Your task to perform on an android device: turn on bluetooth scan Image 0: 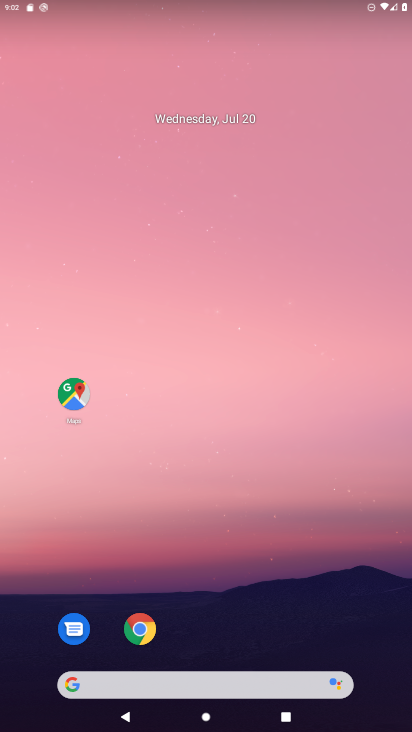
Step 0: drag from (375, 655) to (334, 111)
Your task to perform on an android device: turn on bluetooth scan Image 1: 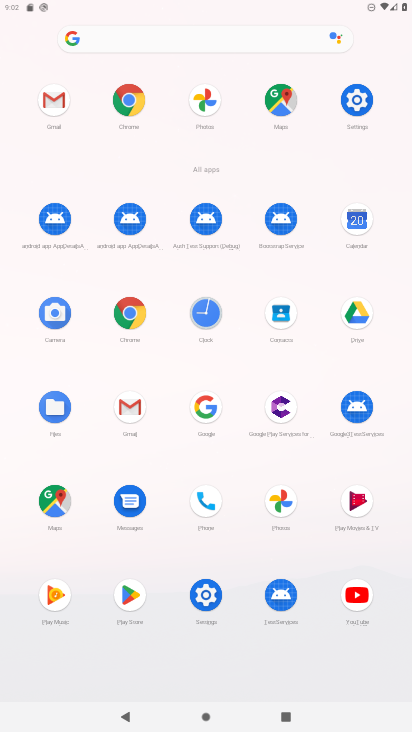
Step 1: click (204, 593)
Your task to perform on an android device: turn on bluetooth scan Image 2: 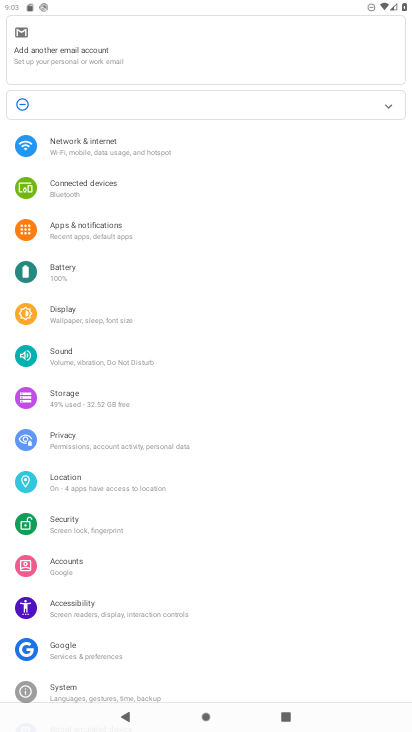
Step 2: click (52, 478)
Your task to perform on an android device: turn on bluetooth scan Image 3: 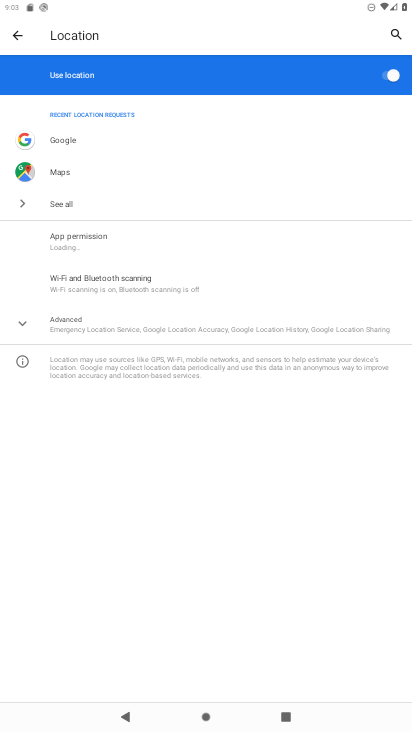
Step 3: click (88, 277)
Your task to perform on an android device: turn on bluetooth scan Image 4: 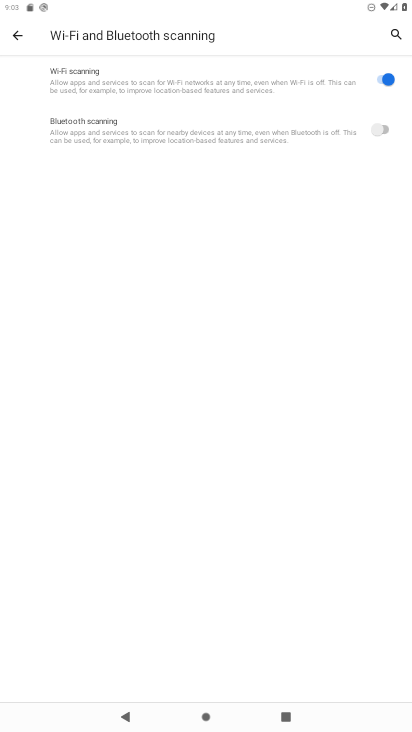
Step 4: click (387, 128)
Your task to perform on an android device: turn on bluetooth scan Image 5: 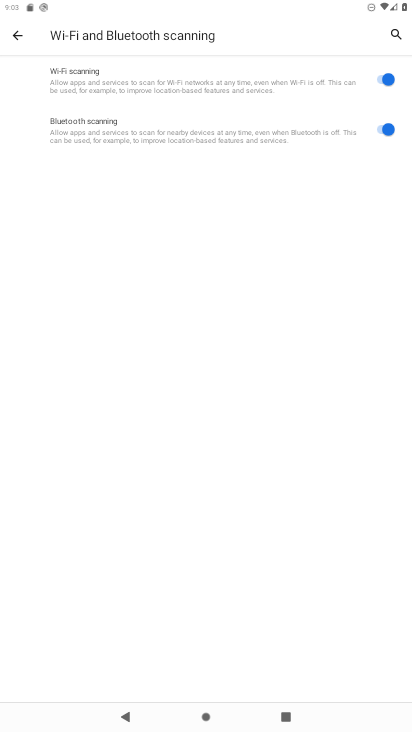
Step 5: task complete